Your task to perform on an android device: turn off notifications in google photos Image 0: 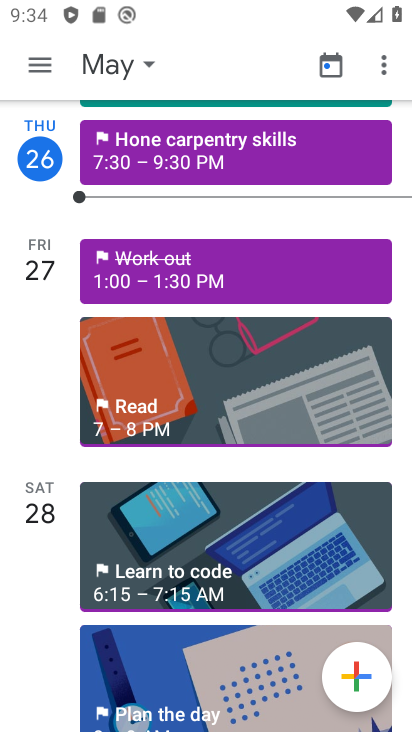
Step 0: press home button
Your task to perform on an android device: turn off notifications in google photos Image 1: 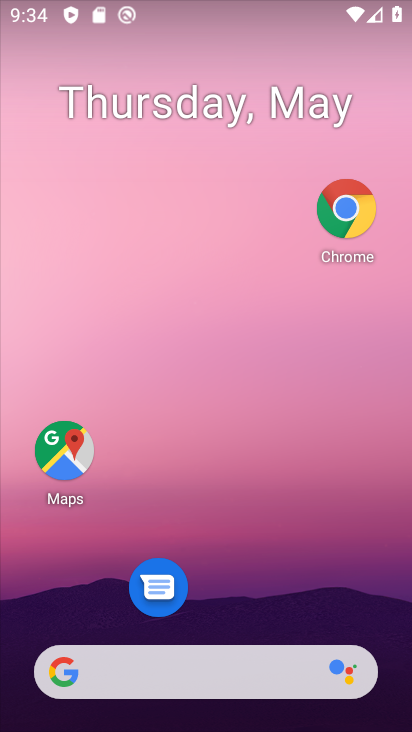
Step 1: drag from (217, 606) to (293, 102)
Your task to perform on an android device: turn off notifications in google photos Image 2: 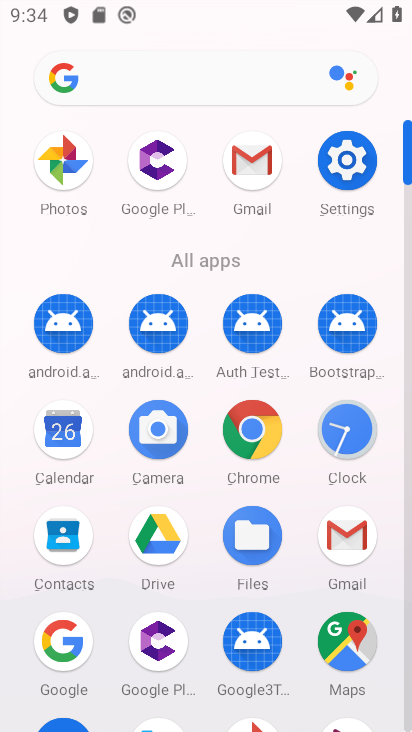
Step 2: drag from (194, 621) to (231, 248)
Your task to perform on an android device: turn off notifications in google photos Image 3: 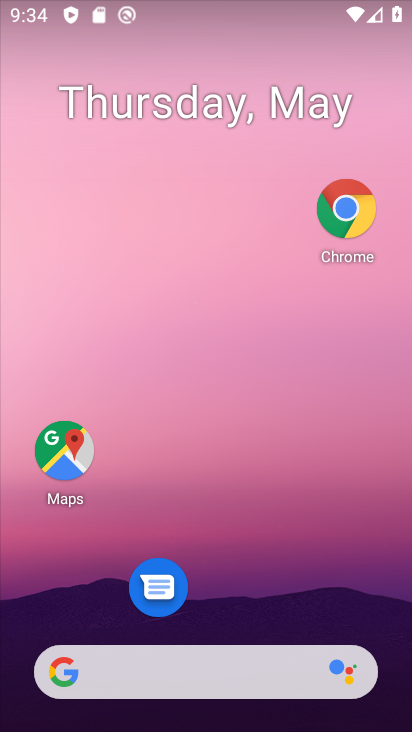
Step 3: drag from (228, 591) to (115, 2)
Your task to perform on an android device: turn off notifications in google photos Image 4: 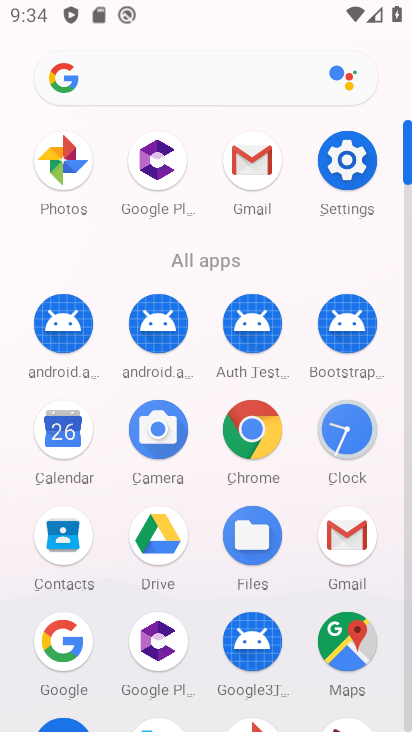
Step 4: click (61, 175)
Your task to perform on an android device: turn off notifications in google photos Image 5: 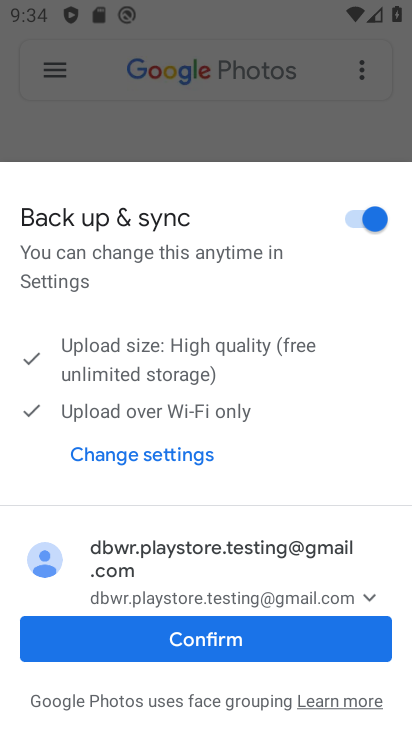
Step 5: click (231, 646)
Your task to perform on an android device: turn off notifications in google photos Image 6: 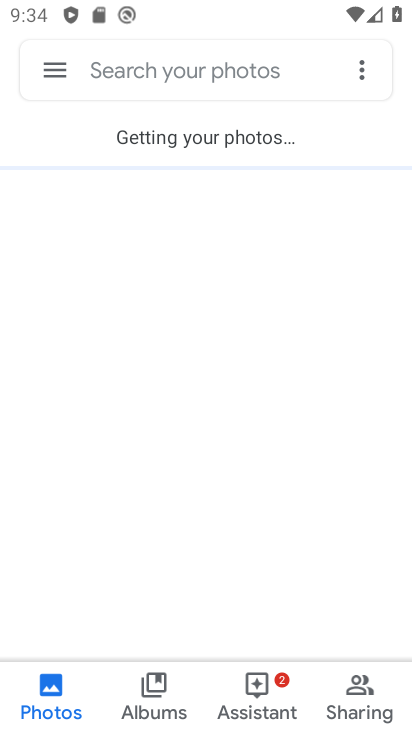
Step 6: click (43, 62)
Your task to perform on an android device: turn off notifications in google photos Image 7: 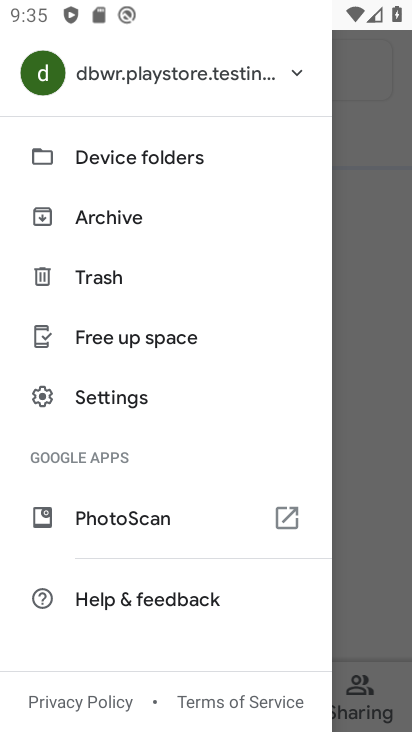
Step 7: click (115, 406)
Your task to perform on an android device: turn off notifications in google photos Image 8: 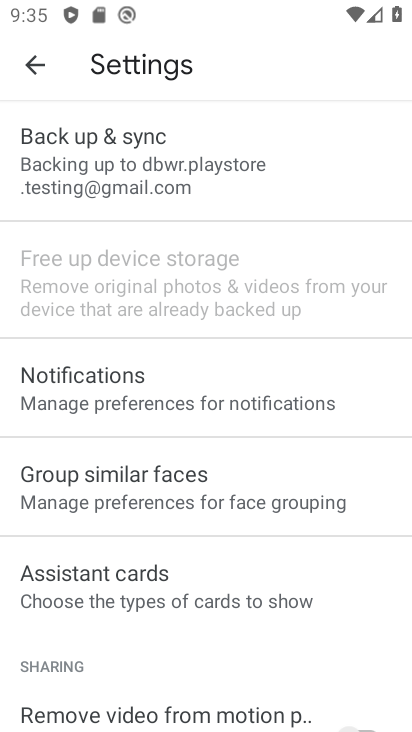
Step 8: click (130, 392)
Your task to perform on an android device: turn off notifications in google photos Image 9: 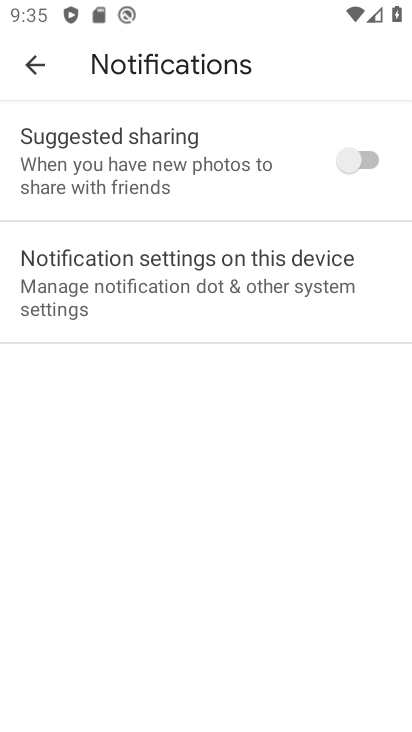
Step 9: click (193, 280)
Your task to perform on an android device: turn off notifications in google photos Image 10: 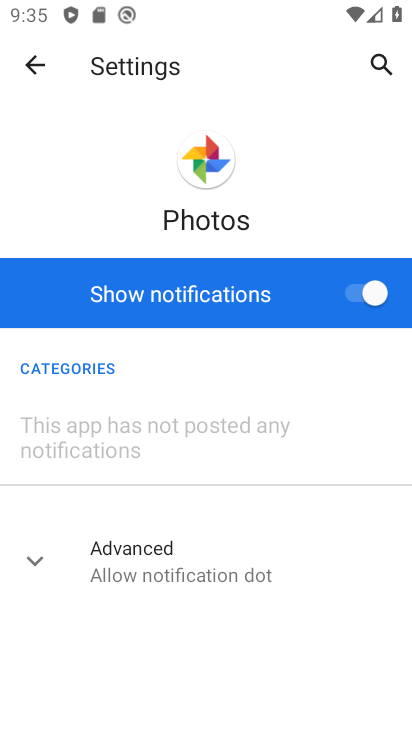
Step 10: click (353, 313)
Your task to perform on an android device: turn off notifications in google photos Image 11: 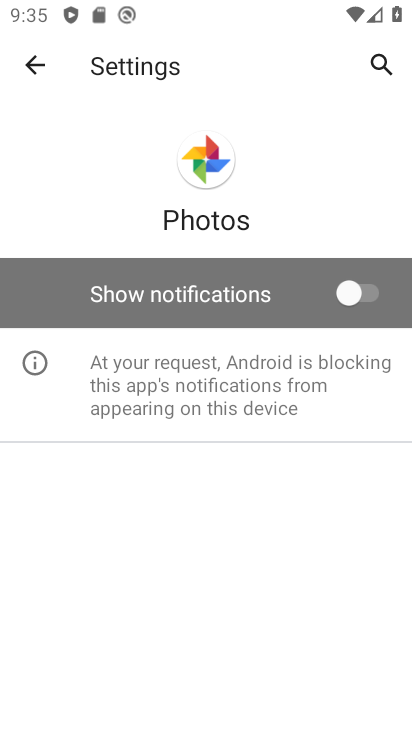
Step 11: task complete